Your task to perform on an android device: Open CNN.com Image 0: 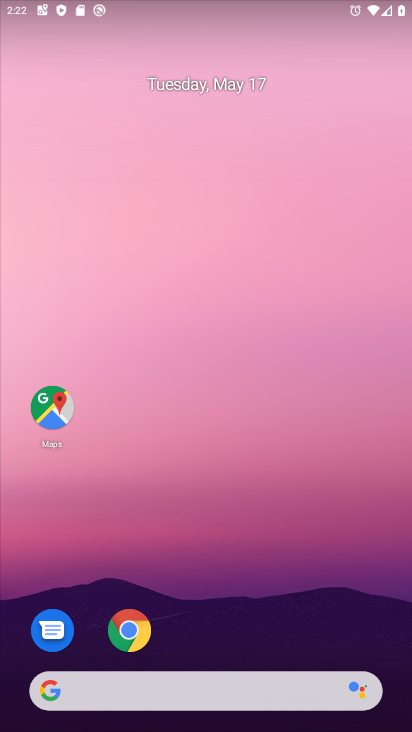
Step 0: drag from (272, 595) to (292, 189)
Your task to perform on an android device: Open CNN.com Image 1: 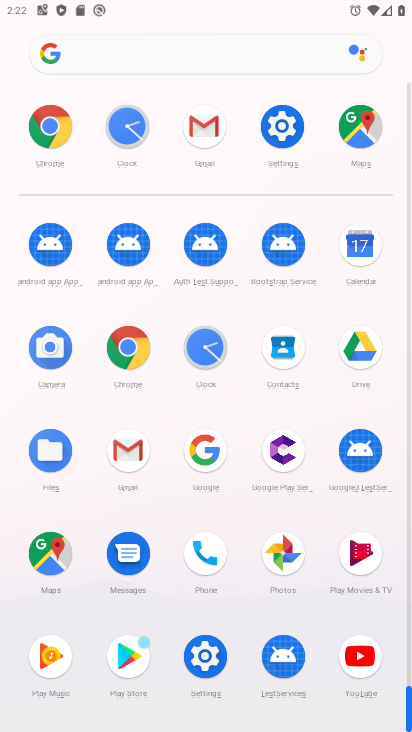
Step 1: click (127, 350)
Your task to perform on an android device: Open CNN.com Image 2: 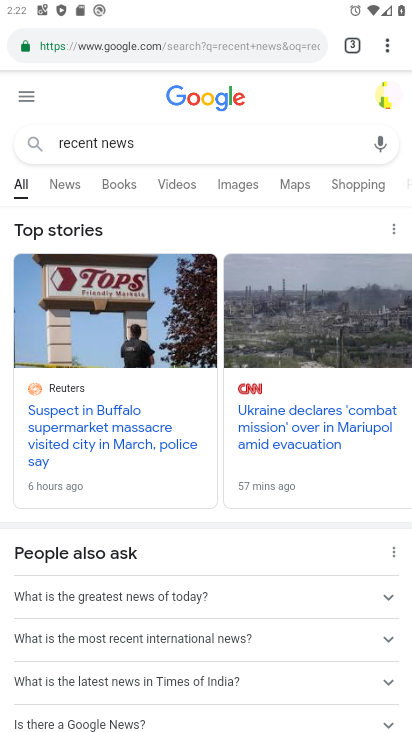
Step 2: task complete